Your task to perform on an android device: turn on sleep mode Image 0: 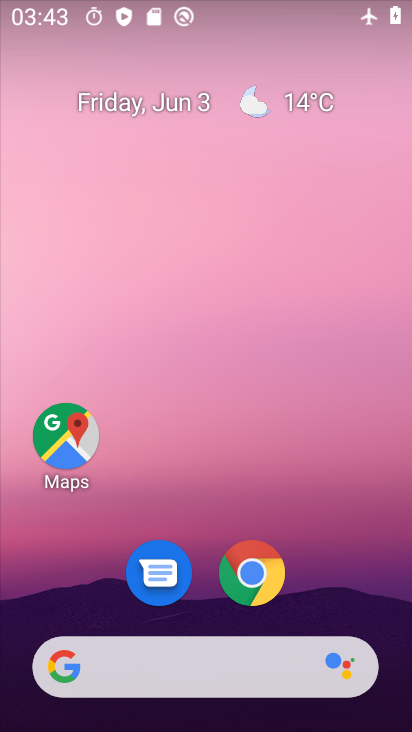
Step 0: drag from (238, 672) to (225, 161)
Your task to perform on an android device: turn on sleep mode Image 1: 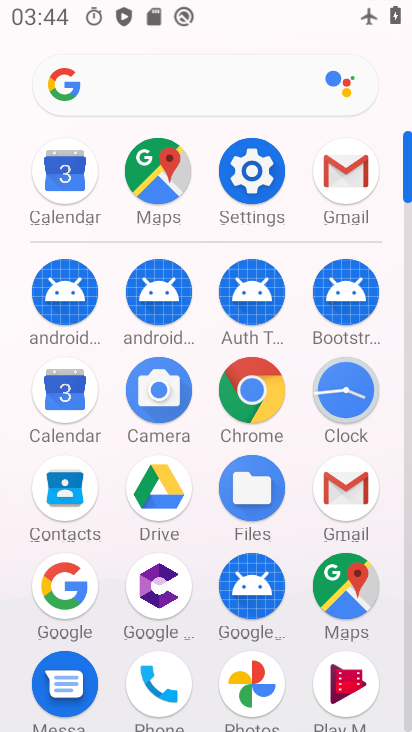
Step 1: click (261, 191)
Your task to perform on an android device: turn on sleep mode Image 2: 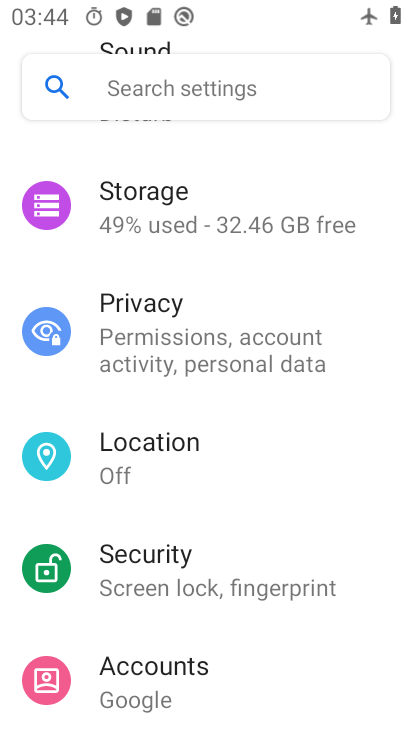
Step 2: drag from (218, 381) to (366, 718)
Your task to perform on an android device: turn on sleep mode Image 3: 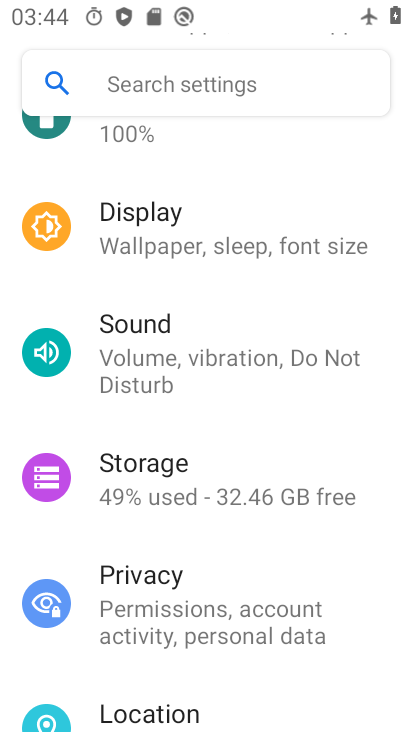
Step 3: click (286, 243)
Your task to perform on an android device: turn on sleep mode Image 4: 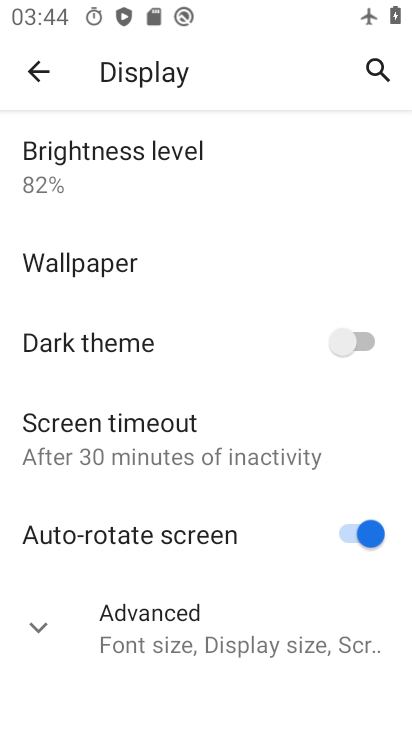
Step 4: task complete